Your task to perform on an android device: turn notification dots off Image 0: 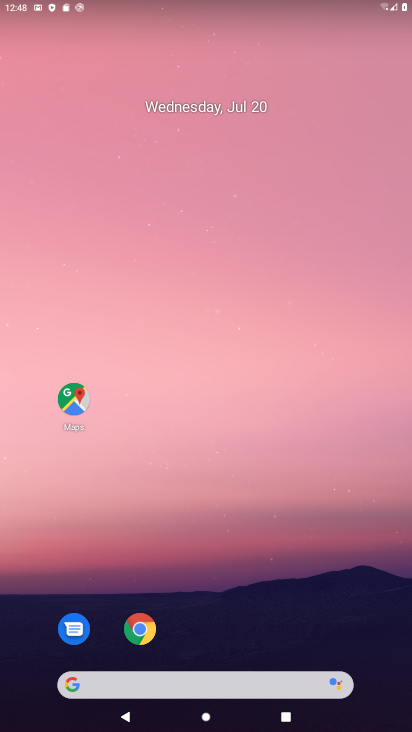
Step 0: drag from (210, 689) to (276, 204)
Your task to perform on an android device: turn notification dots off Image 1: 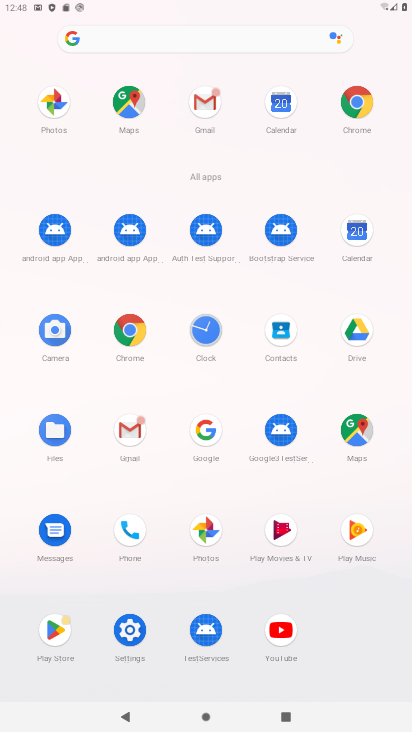
Step 1: click (130, 628)
Your task to perform on an android device: turn notification dots off Image 2: 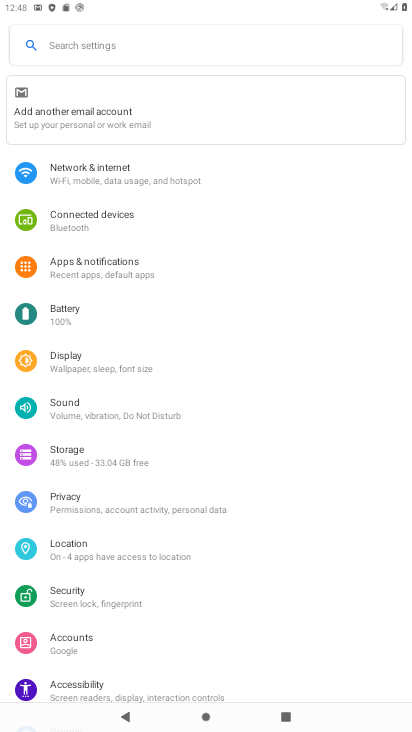
Step 2: click (99, 268)
Your task to perform on an android device: turn notification dots off Image 3: 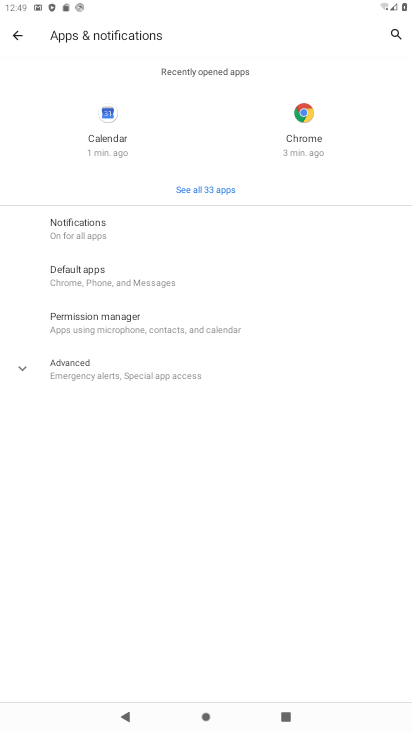
Step 3: click (87, 227)
Your task to perform on an android device: turn notification dots off Image 4: 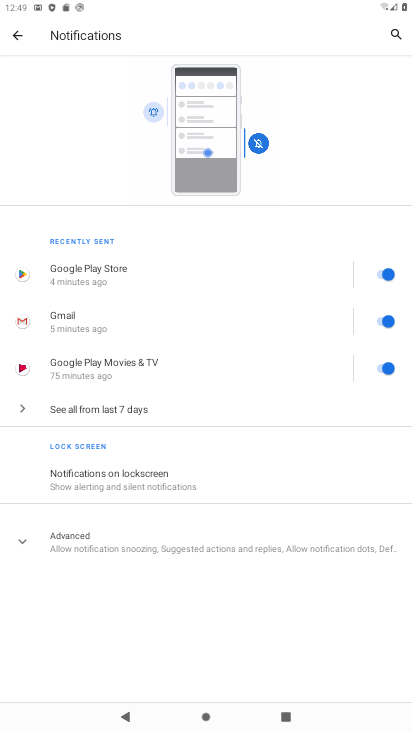
Step 4: click (90, 544)
Your task to perform on an android device: turn notification dots off Image 5: 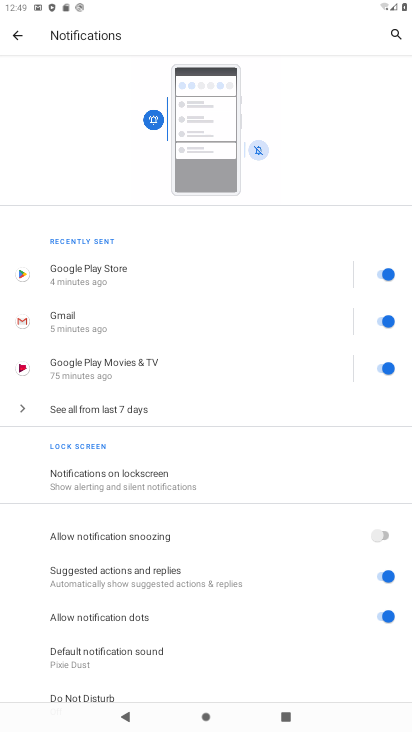
Step 5: click (385, 613)
Your task to perform on an android device: turn notification dots off Image 6: 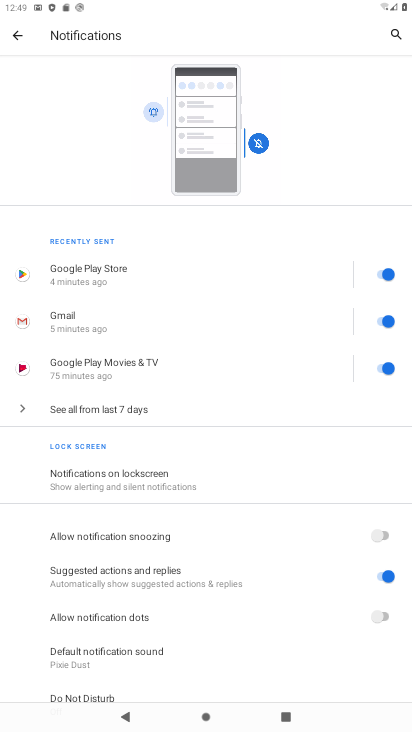
Step 6: task complete